Your task to perform on an android device: turn on javascript in the chrome app Image 0: 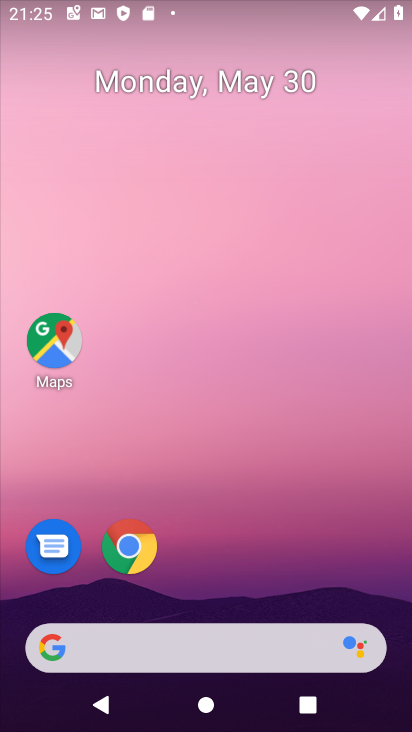
Step 0: drag from (281, 533) to (282, 181)
Your task to perform on an android device: turn on javascript in the chrome app Image 1: 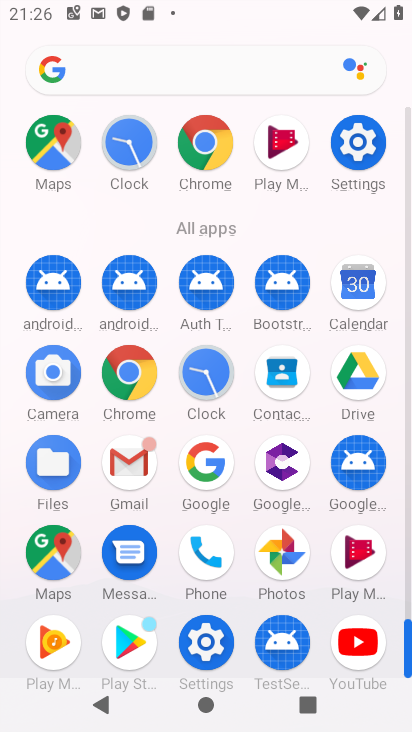
Step 1: click (140, 370)
Your task to perform on an android device: turn on javascript in the chrome app Image 2: 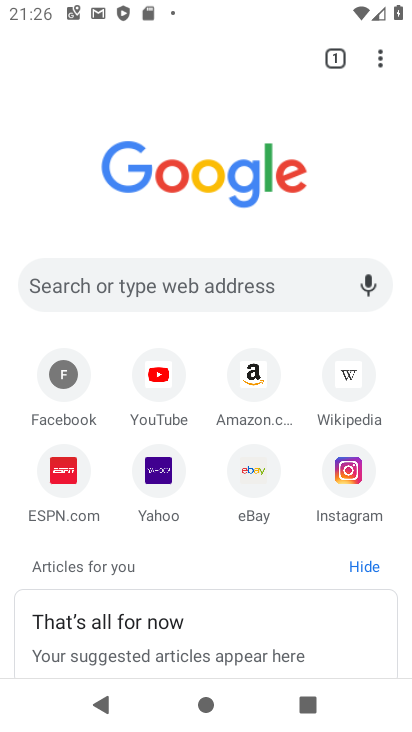
Step 2: drag from (381, 60) to (243, 502)
Your task to perform on an android device: turn on javascript in the chrome app Image 3: 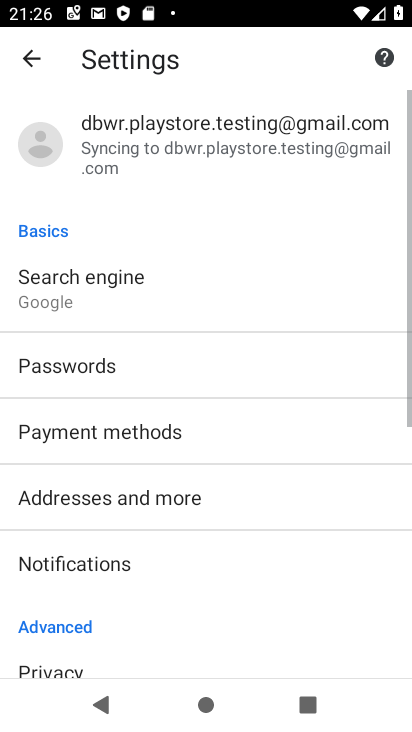
Step 3: drag from (204, 618) to (221, 202)
Your task to perform on an android device: turn on javascript in the chrome app Image 4: 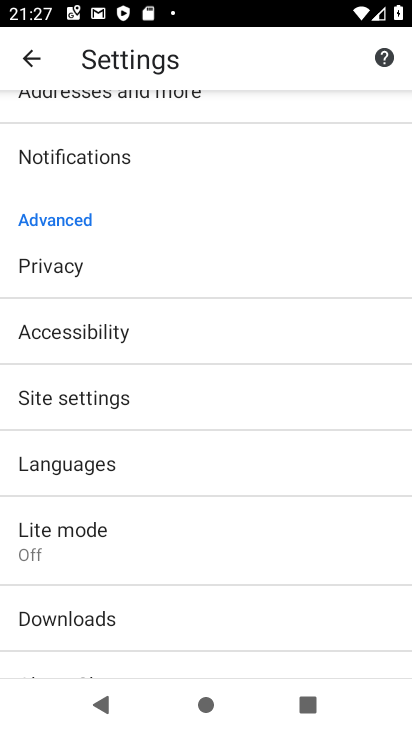
Step 4: click (178, 400)
Your task to perform on an android device: turn on javascript in the chrome app Image 5: 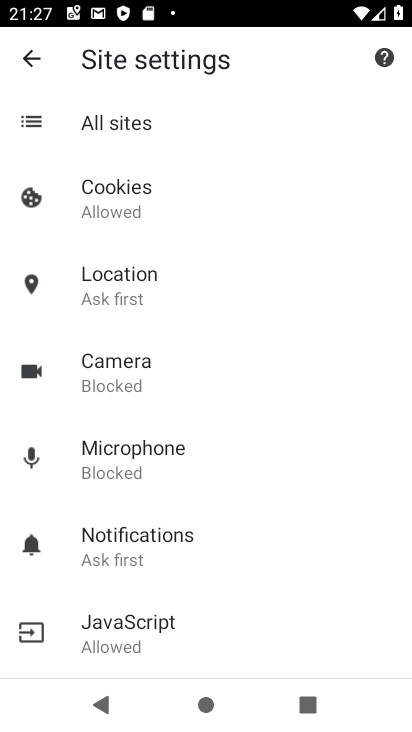
Step 5: click (202, 623)
Your task to perform on an android device: turn on javascript in the chrome app Image 6: 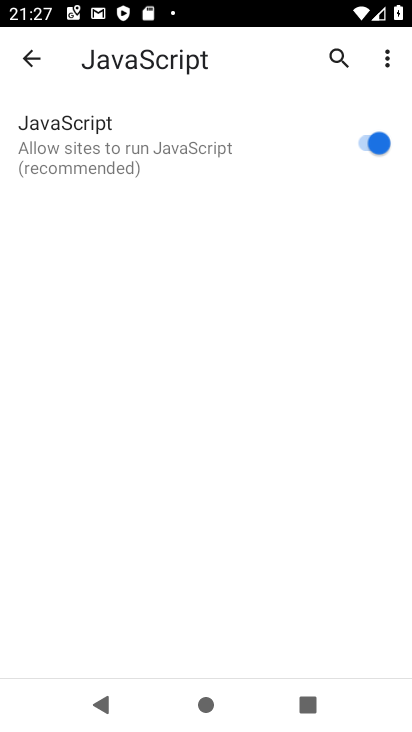
Step 6: task complete